Your task to perform on an android device: Go to Yahoo.com Image 0: 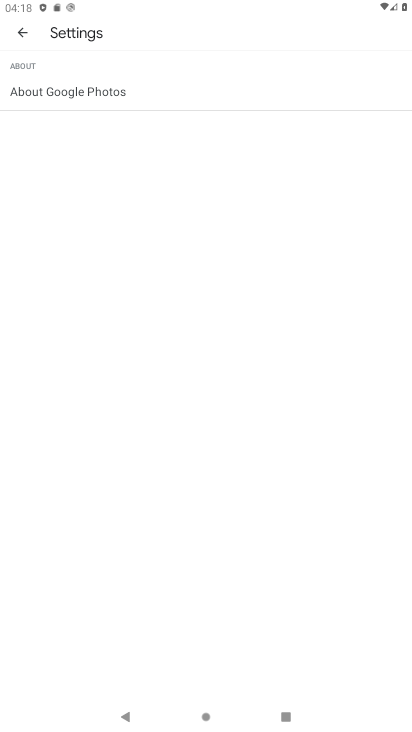
Step 0: press home button
Your task to perform on an android device: Go to Yahoo.com Image 1: 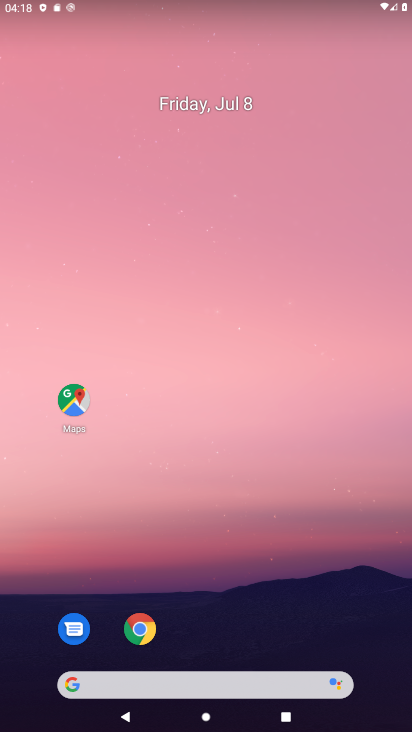
Step 1: click (144, 633)
Your task to perform on an android device: Go to Yahoo.com Image 2: 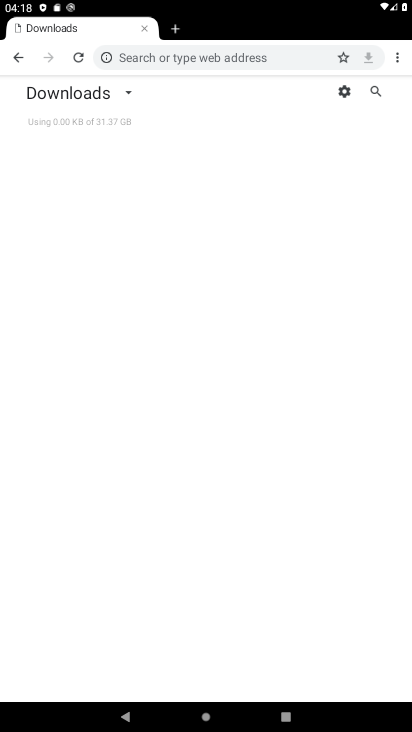
Step 2: click (399, 58)
Your task to perform on an android device: Go to Yahoo.com Image 3: 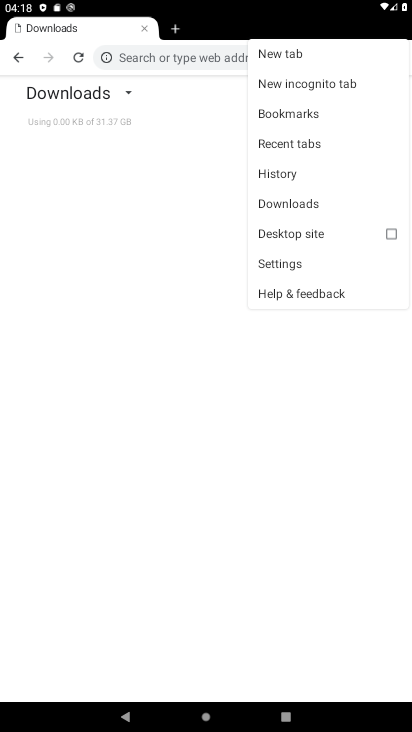
Step 3: click (292, 51)
Your task to perform on an android device: Go to Yahoo.com Image 4: 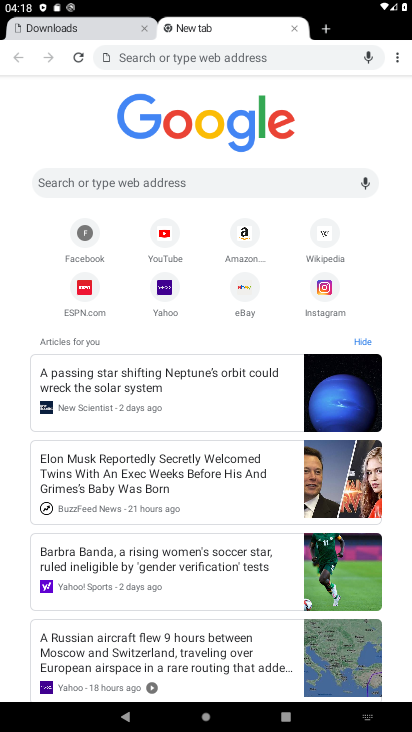
Step 4: click (161, 293)
Your task to perform on an android device: Go to Yahoo.com Image 5: 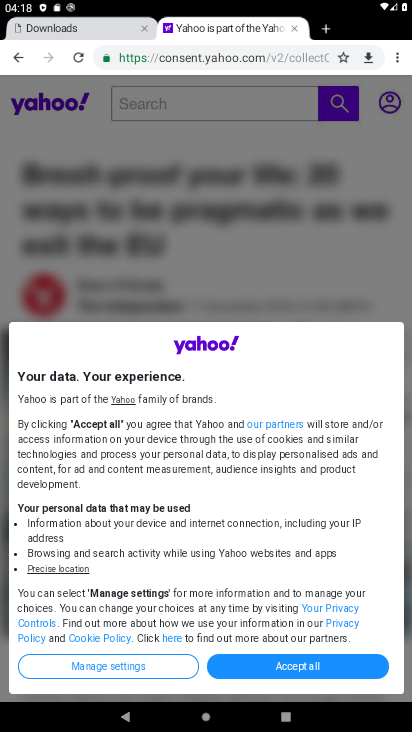
Step 5: click (310, 670)
Your task to perform on an android device: Go to Yahoo.com Image 6: 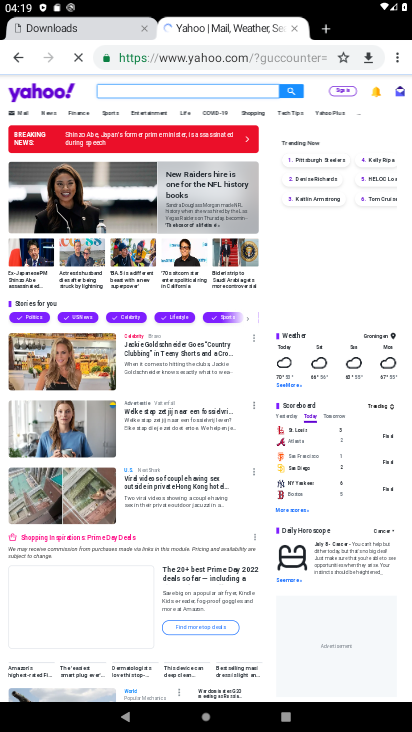
Step 6: task complete